Your task to perform on an android device: Is it going to rain tomorrow? Image 0: 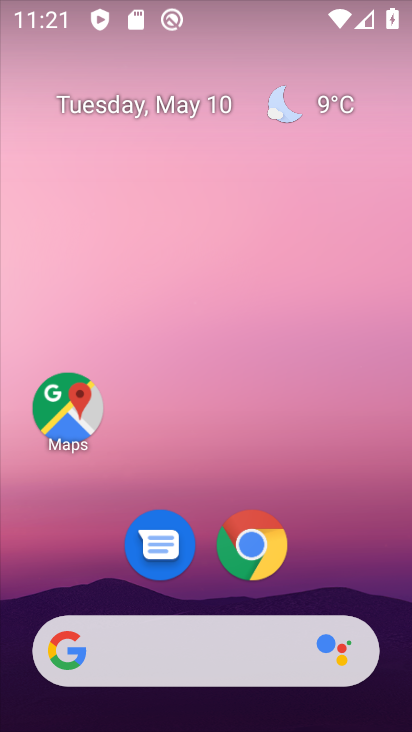
Step 0: click (307, 108)
Your task to perform on an android device: Is it going to rain tomorrow? Image 1: 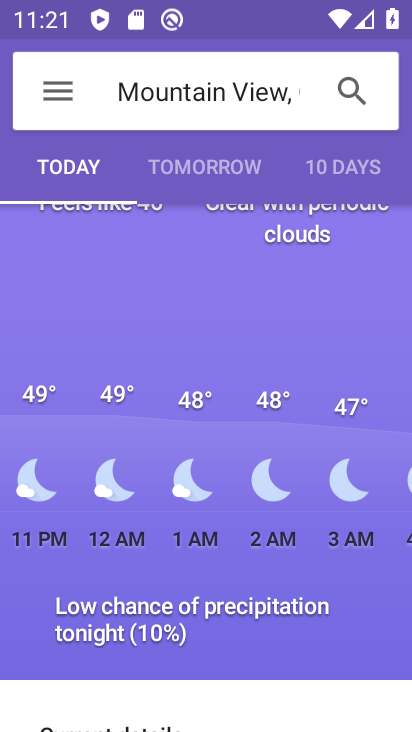
Step 1: click (206, 174)
Your task to perform on an android device: Is it going to rain tomorrow? Image 2: 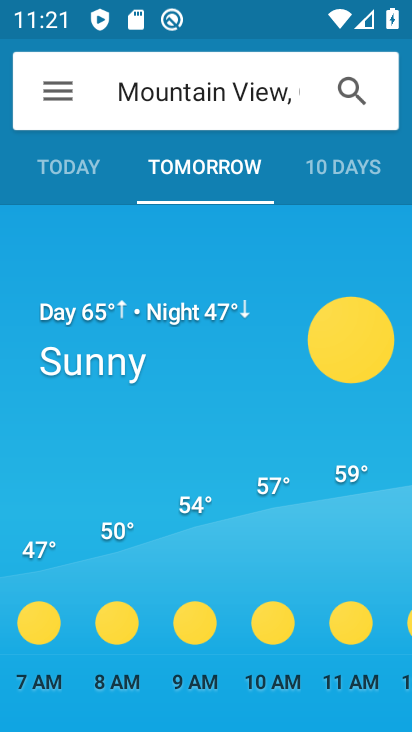
Step 2: task complete